Your task to perform on an android device: delete location history Image 0: 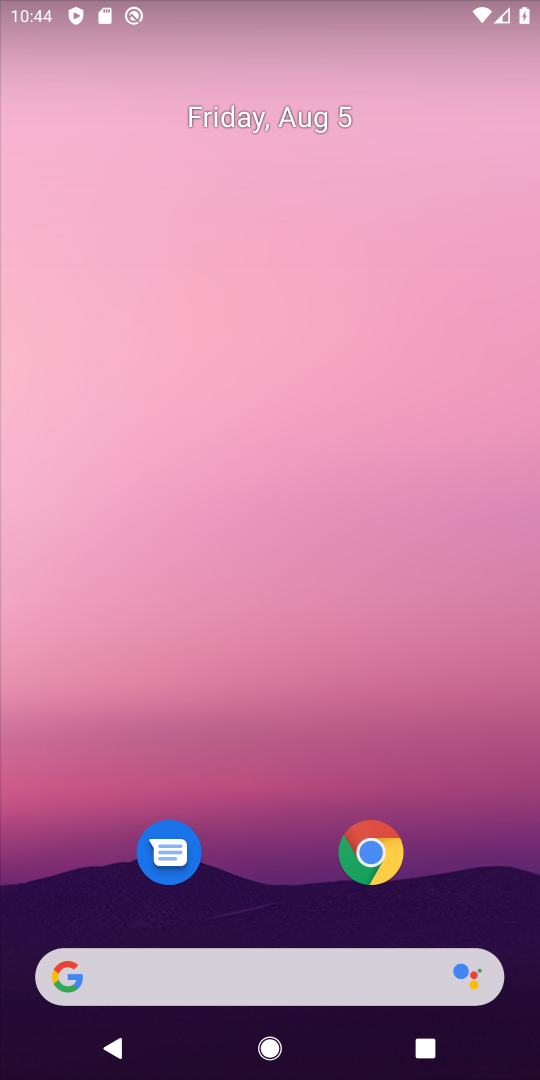
Step 0: drag from (152, 877) to (175, 386)
Your task to perform on an android device: delete location history Image 1: 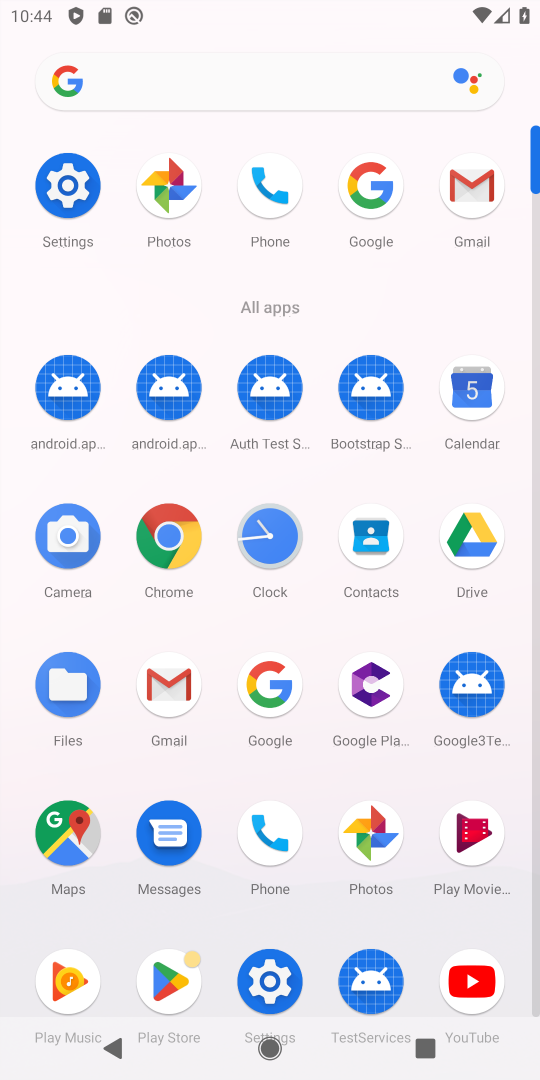
Step 1: click (68, 194)
Your task to perform on an android device: delete location history Image 2: 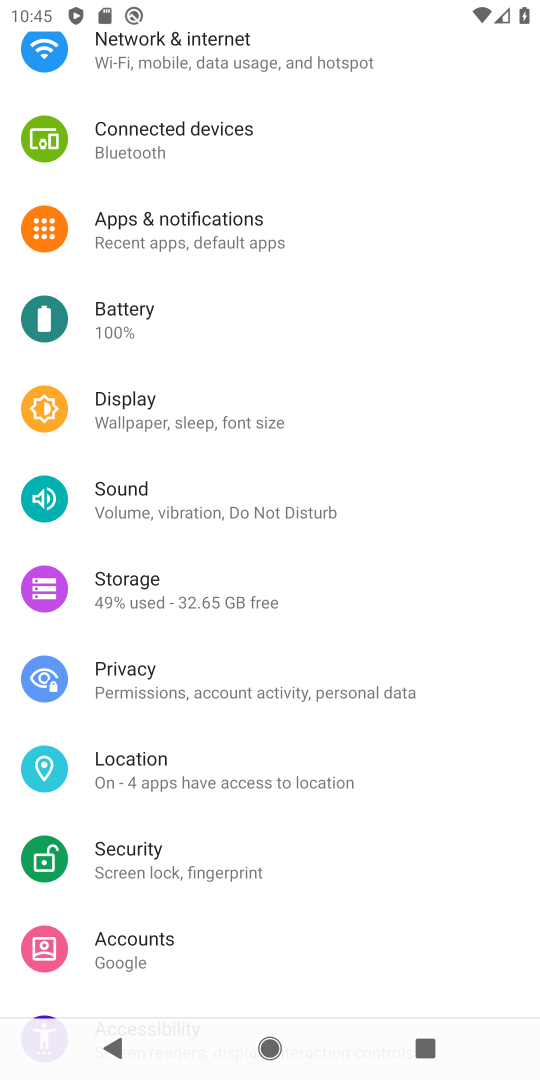
Step 2: click (111, 781)
Your task to perform on an android device: delete location history Image 3: 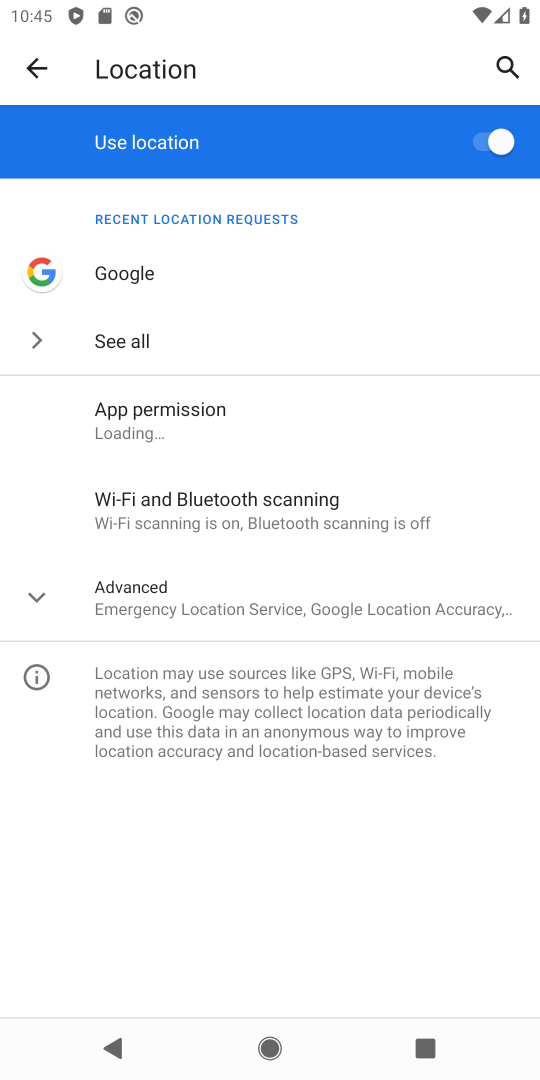
Step 3: click (206, 623)
Your task to perform on an android device: delete location history Image 4: 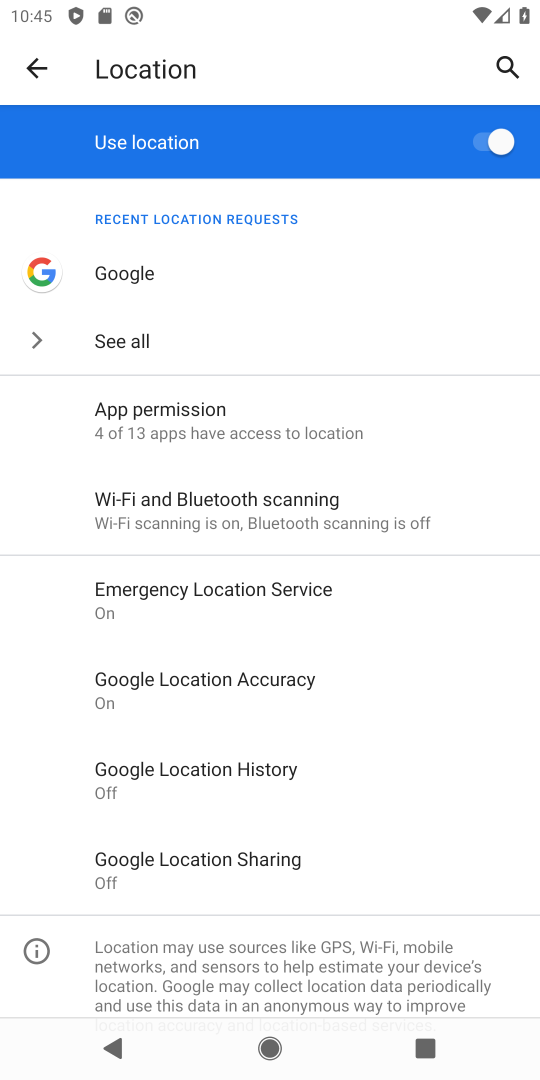
Step 4: click (251, 770)
Your task to perform on an android device: delete location history Image 5: 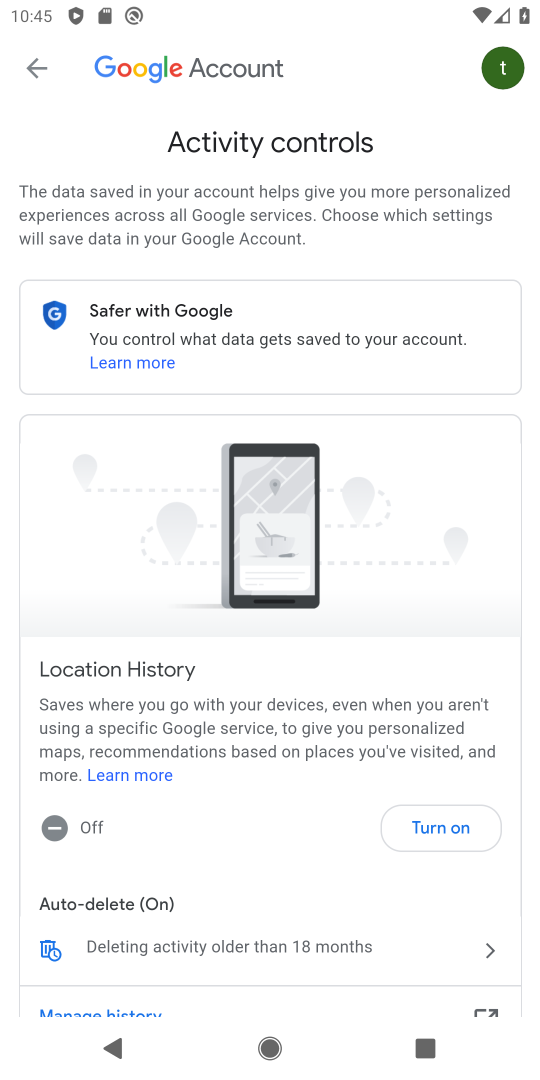
Step 5: click (297, 950)
Your task to perform on an android device: delete location history Image 6: 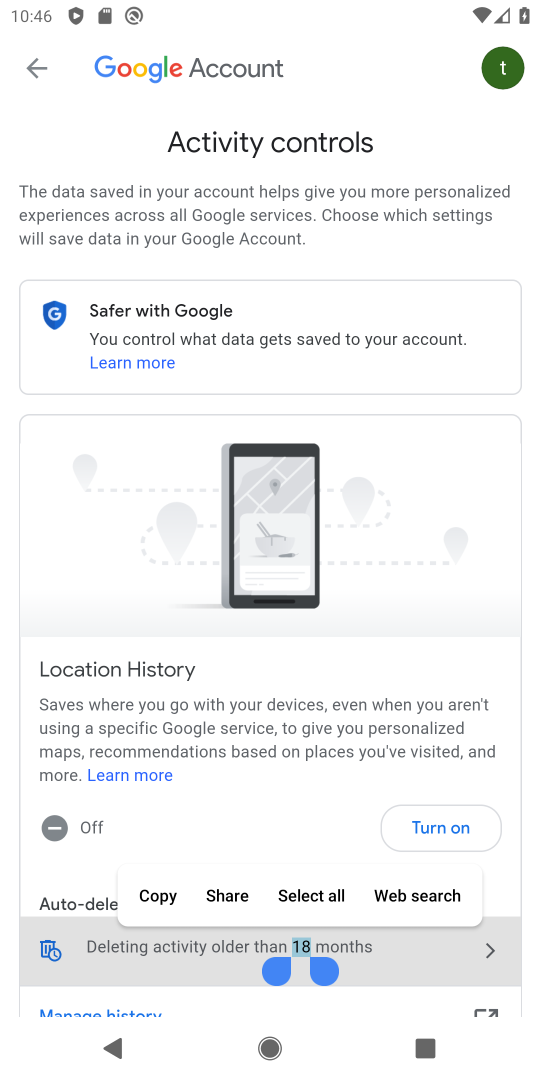
Step 6: drag from (249, 835) to (322, 442)
Your task to perform on an android device: delete location history Image 7: 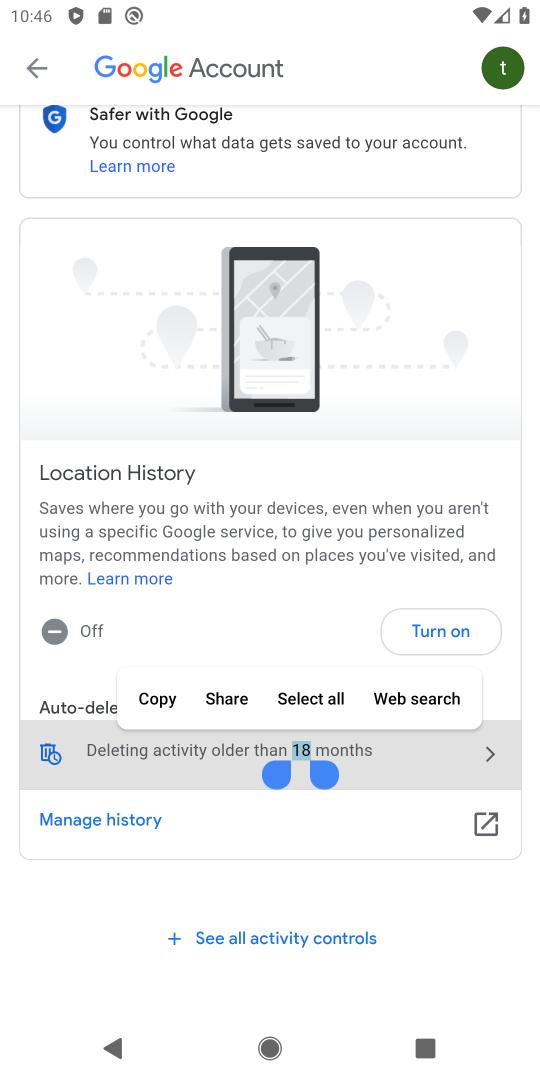
Step 7: click (138, 750)
Your task to perform on an android device: delete location history Image 8: 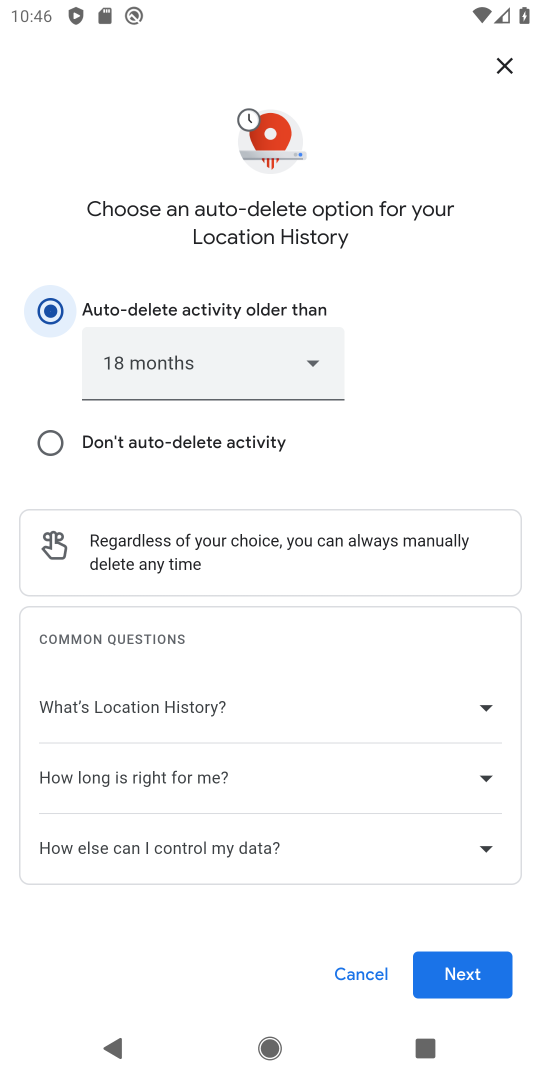
Step 8: click (447, 980)
Your task to perform on an android device: delete location history Image 9: 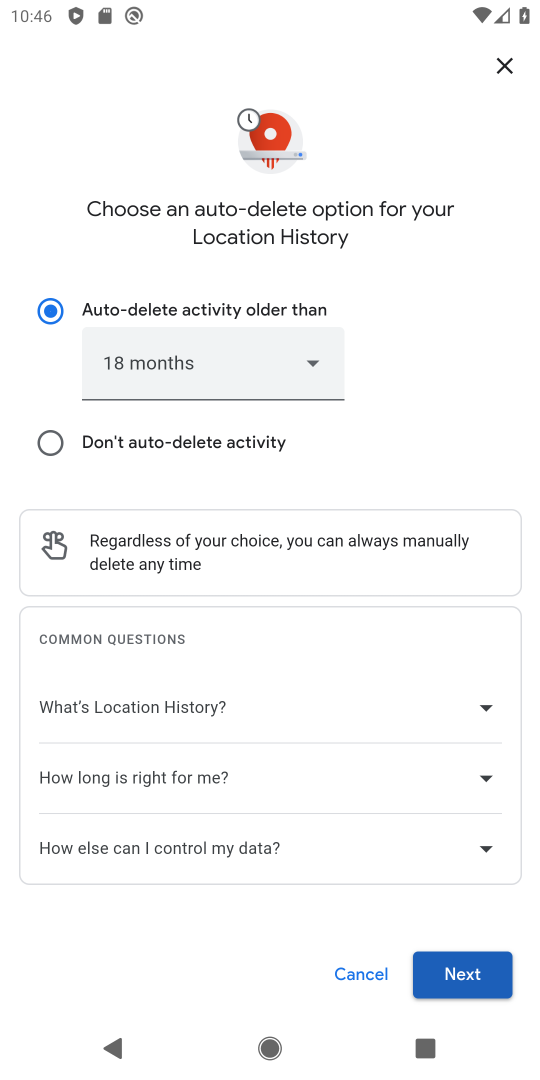
Step 9: click (447, 980)
Your task to perform on an android device: delete location history Image 10: 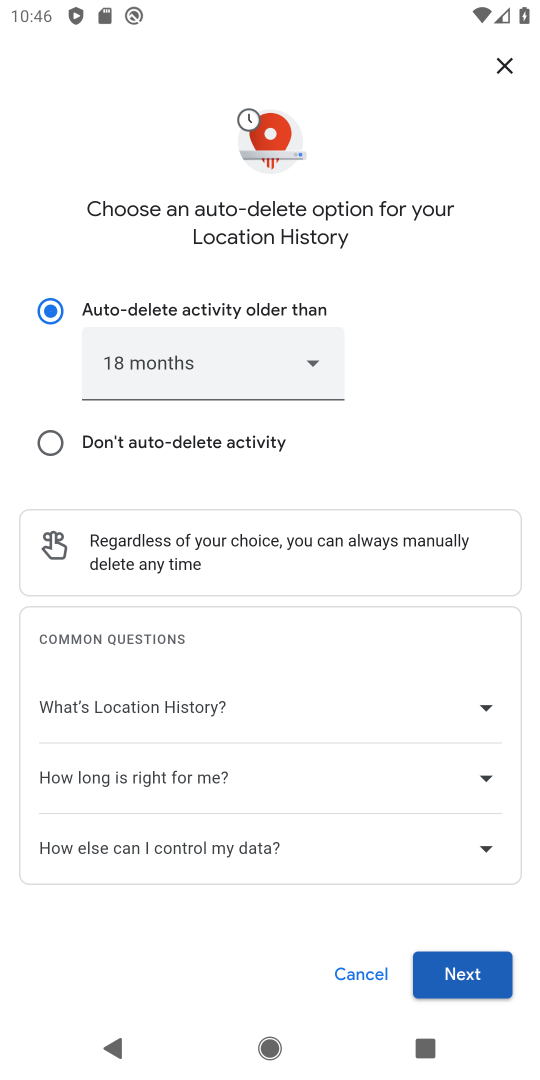
Step 10: click (465, 978)
Your task to perform on an android device: delete location history Image 11: 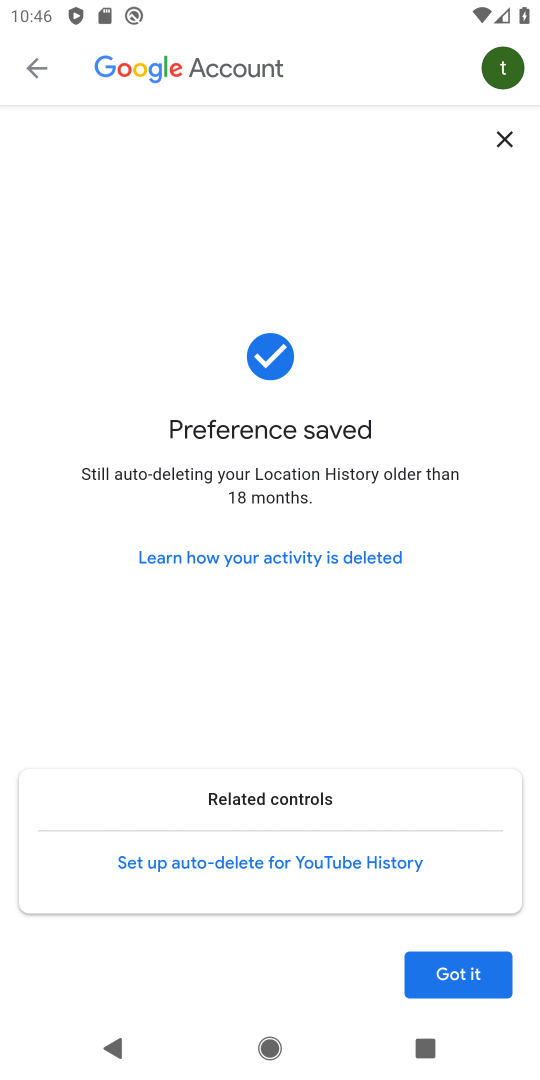
Step 11: click (462, 979)
Your task to perform on an android device: delete location history Image 12: 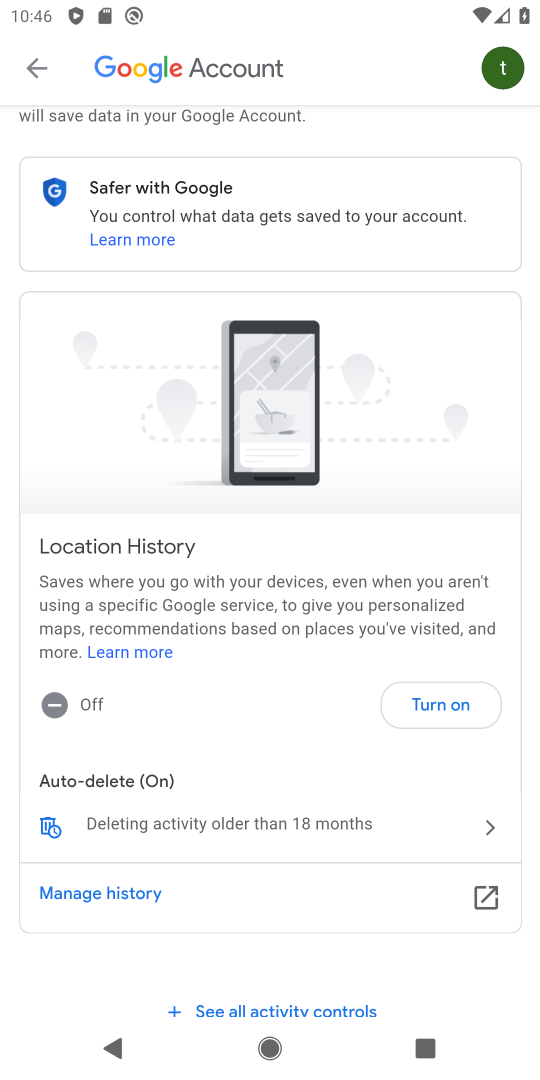
Step 12: task complete